Your task to perform on an android device: change your default location settings in chrome Image 0: 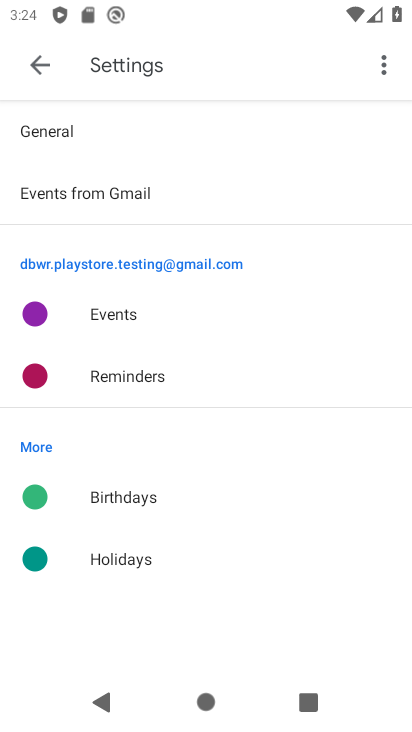
Step 0: press home button
Your task to perform on an android device: change your default location settings in chrome Image 1: 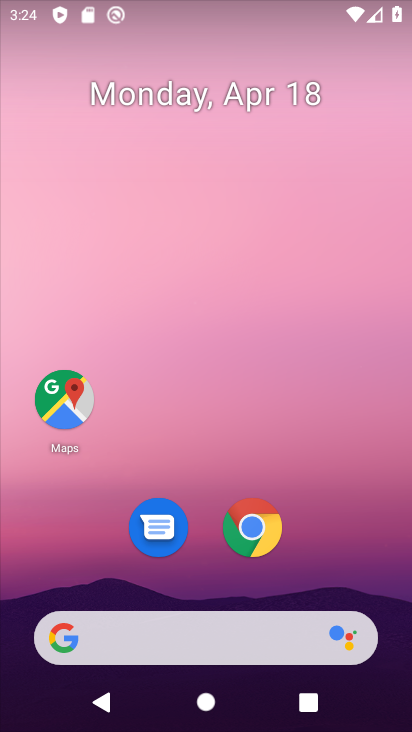
Step 1: click (270, 548)
Your task to perform on an android device: change your default location settings in chrome Image 2: 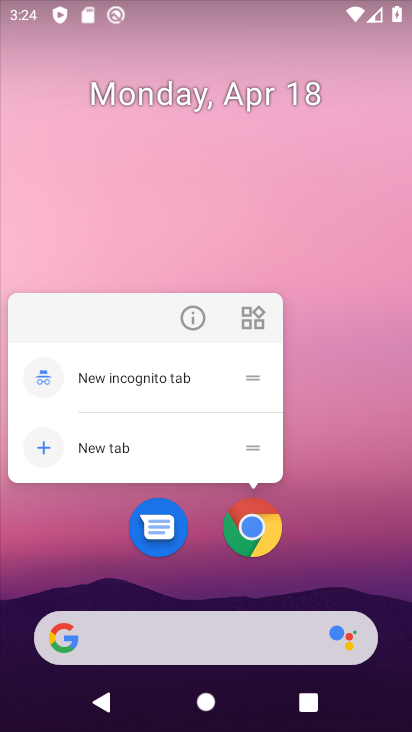
Step 2: click (270, 548)
Your task to perform on an android device: change your default location settings in chrome Image 3: 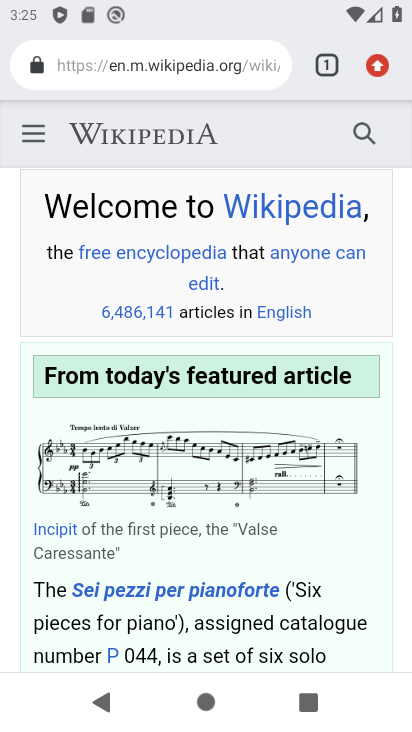
Step 3: drag from (371, 69) to (180, 570)
Your task to perform on an android device: change your default location settings in chrome Image 4: 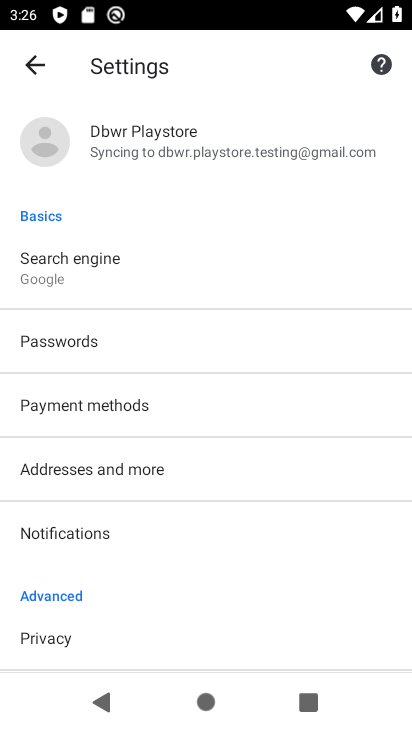
Step 4: drag from (110, 320) to (5, 29)
Your task to perform on an android device: change your default location settings in chrome Image 5: 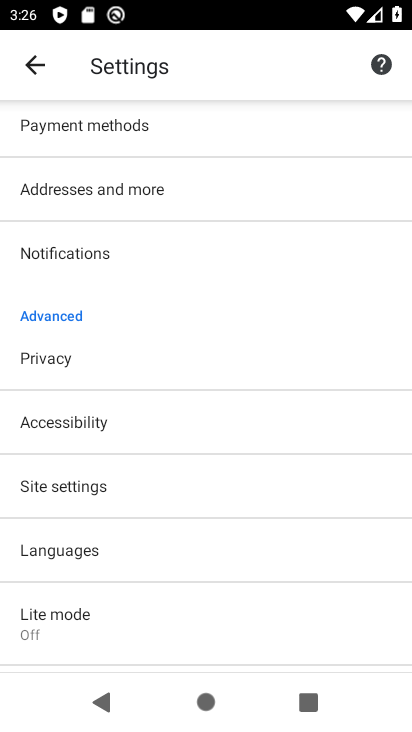
Step 5: click (70, 483)
Your task to perform on an android device: change your default location settings in chrome Image 6: 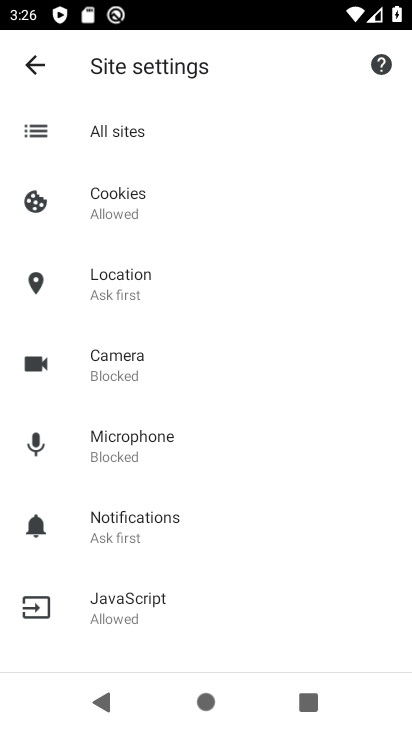
Step 6: click (152, 293)
Your task to perform on an android device: change your default location settings in chrome Image 7: 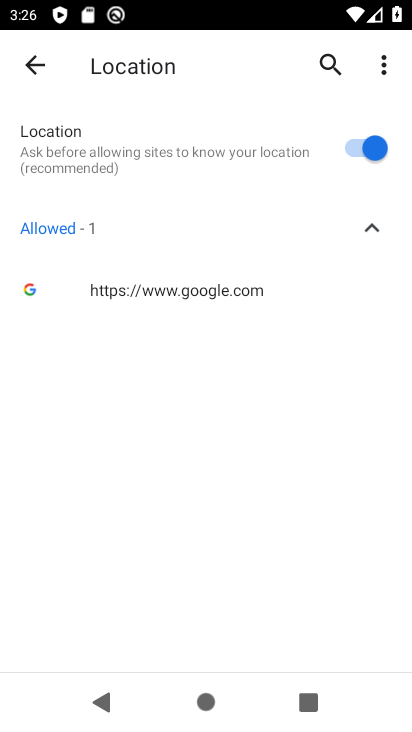
Step 7: click (371, 146)
Your task to perform on an android device: change your default location settings in chrome Image 8: 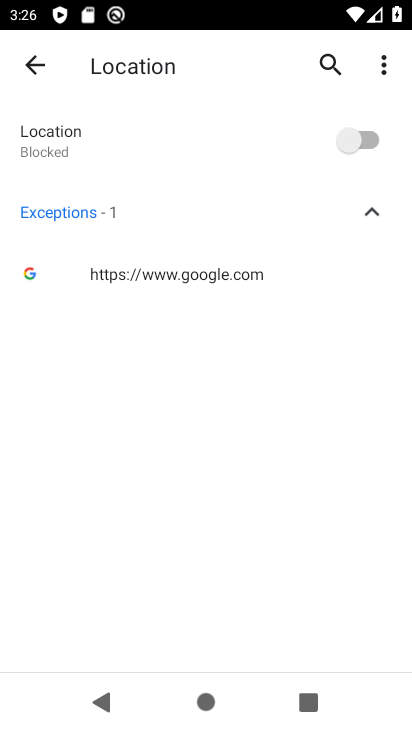
Step 8: task complete